Your task to perform on an android device: What's the weather? Image 0: 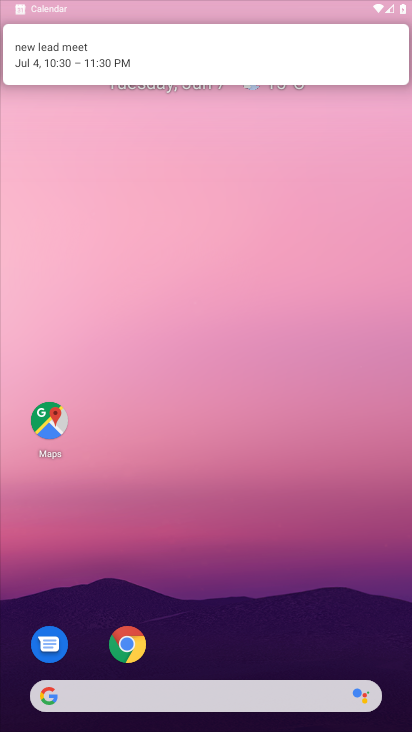
Step 0: drag from (279, 602) to (314, 157)
Your task to perform on an android device: What's the weather? Image 1: 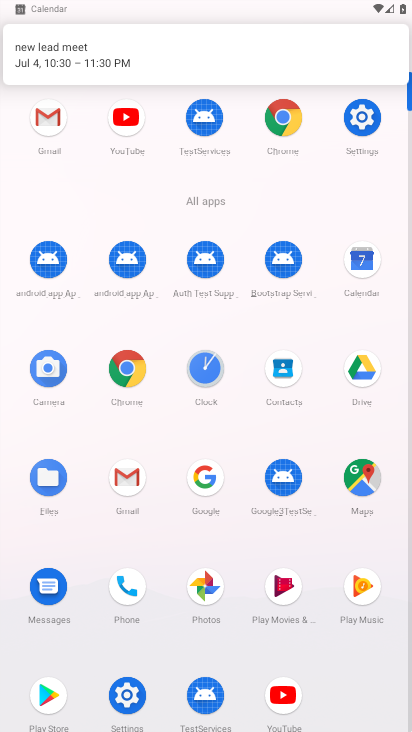
Step 1: click (289, 119)
Your task to perform on an android device: What's the weather? Image 2: 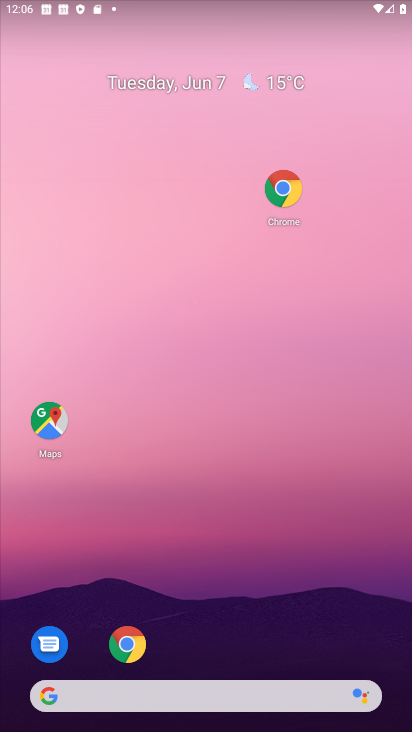
Step 2: click (288, 104)
Your task to perform on an android device: What's the weather? Image 3: 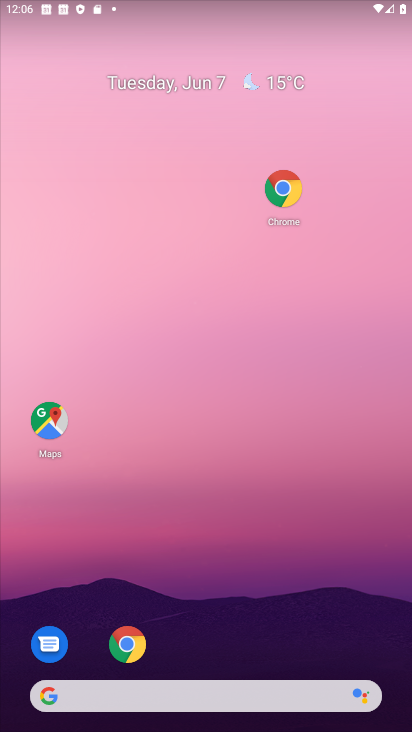
Step 3: click (285, 90)
Your task to perform on an android device: What's the weather? Image 4: 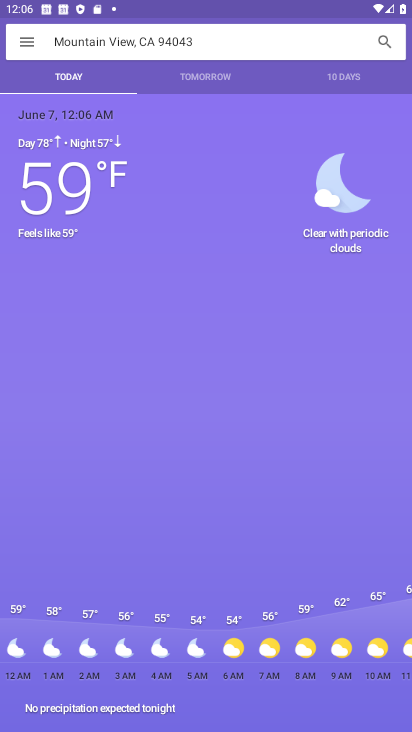
Step 4: task complete